Your task to perform on an android device: What's on my calendar today? Image 0: 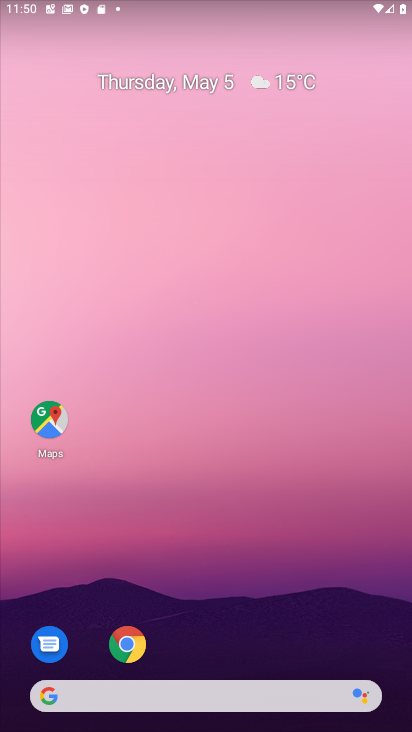
Step 0: drag from (294, 551) to (208, 36)
Your task to perform on an android device: What's on my calendar today? Image 1: 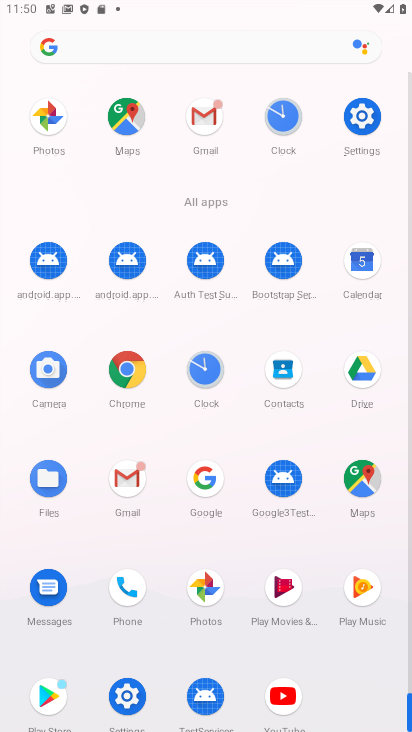
Step 1: drag from (6, 581) to (16, 299)
Your task to perform on an android device: What's on my calendar today? Image 2: 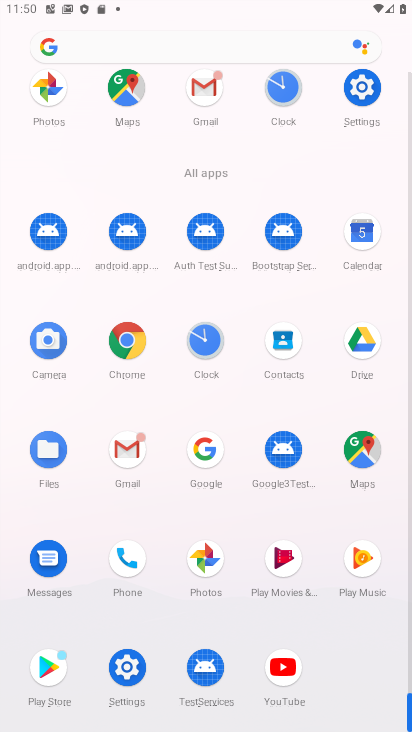
Step 2: click (363, 228)
Your task to perform on an android device: What's on my calendar today? Image 3: 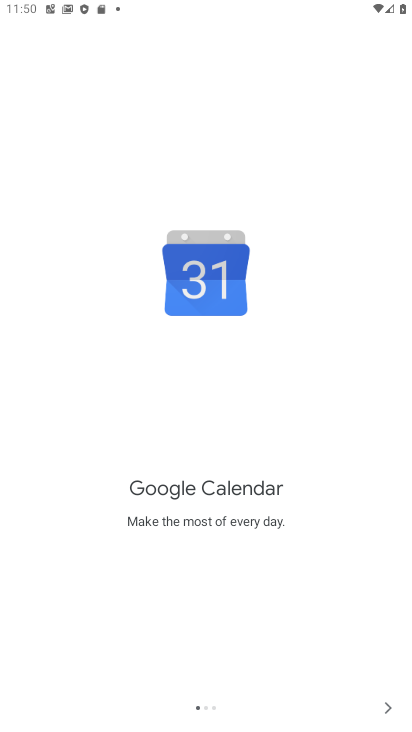
Step 3: click (386, 709)
Your task to perform on an android device: What's on my calendar today? Image 4: 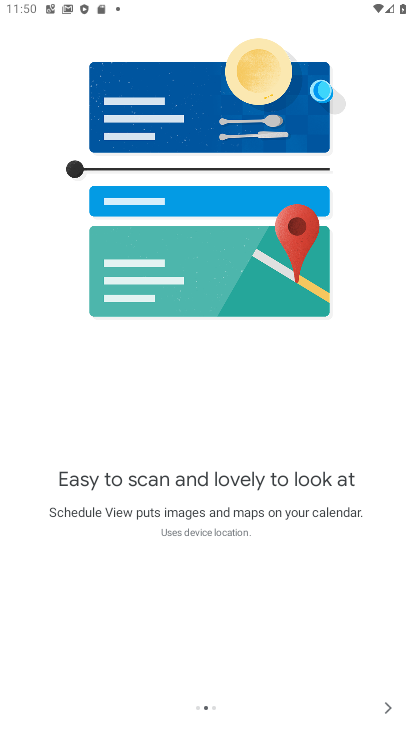
Step 4: click (385, 709)
Your task to perform on an android device: What's on my calendar today? Image 5: 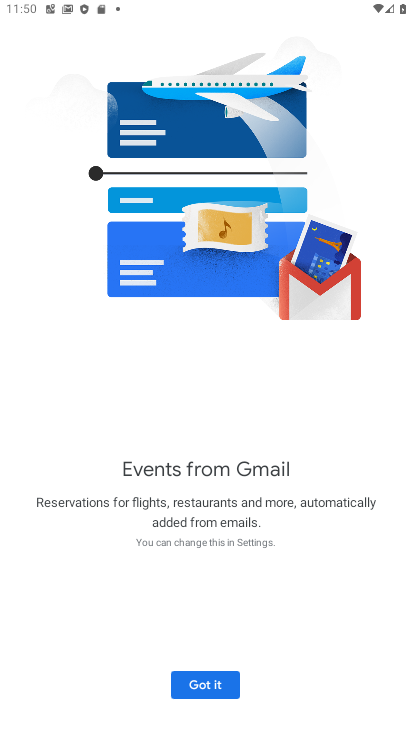
Step 5: click (214, 681)
Your task to perform on an android device: What's on my calendar today? Image 6: 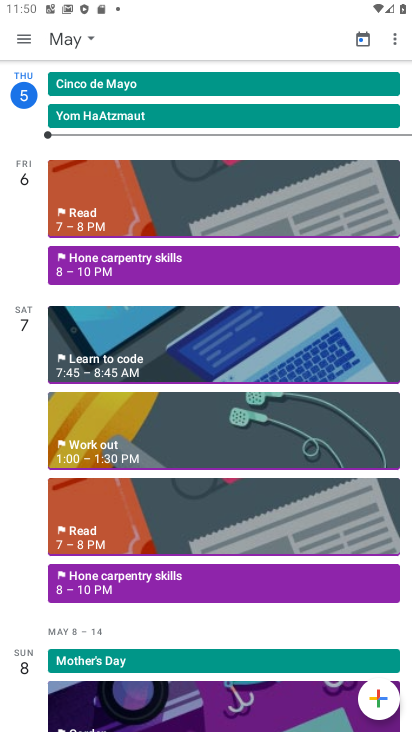
Step 6: click (369, 34)
Your task to perform on an android device: What's on my calendar today? Image 7: 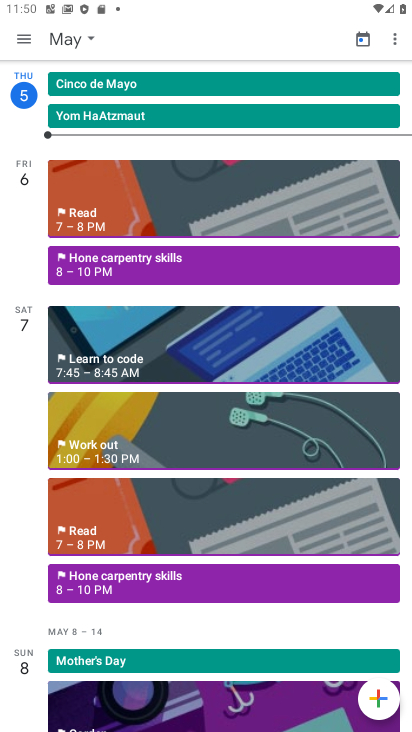
Step 7: click (38, 36)
Your task to perform on an android device: What's on my calendar today? Image 8: 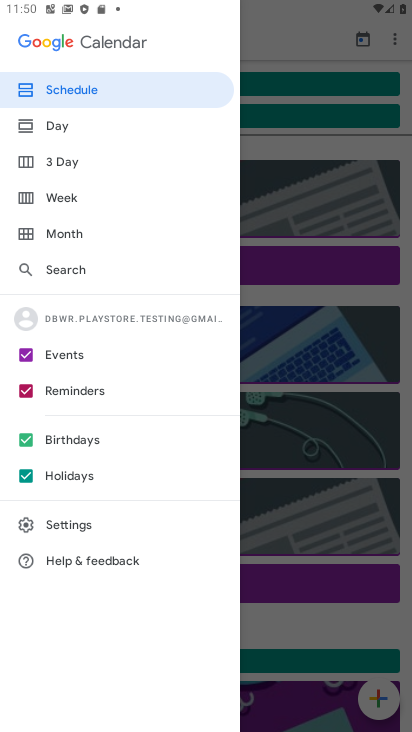
Step 8: click (285, 41)
Your task to perform on an android device: What's on my calendar today? Image 9: 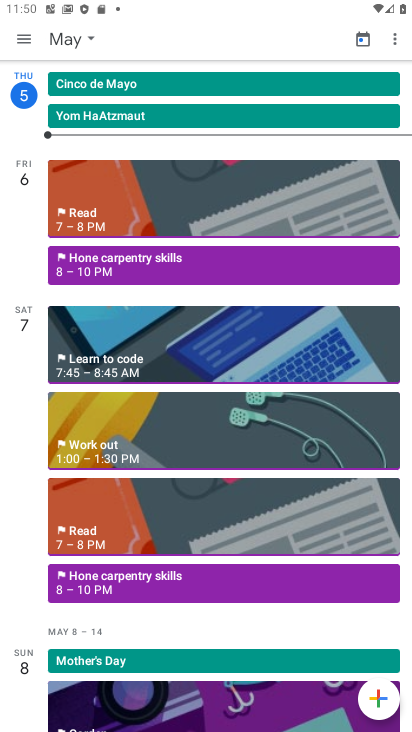
Step 9: click (21, 98)
Your task to perform on an android device: What's on my calendar today? Image 10: 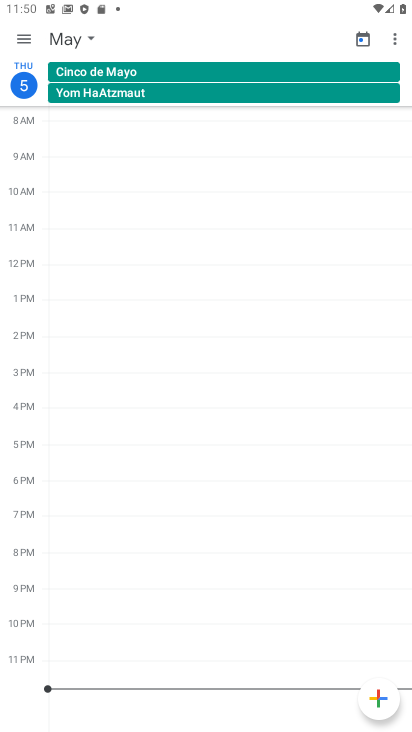
Step 10: click (32, 86)
Your task to perform on an android device: What's on my calendar today? Image 11: 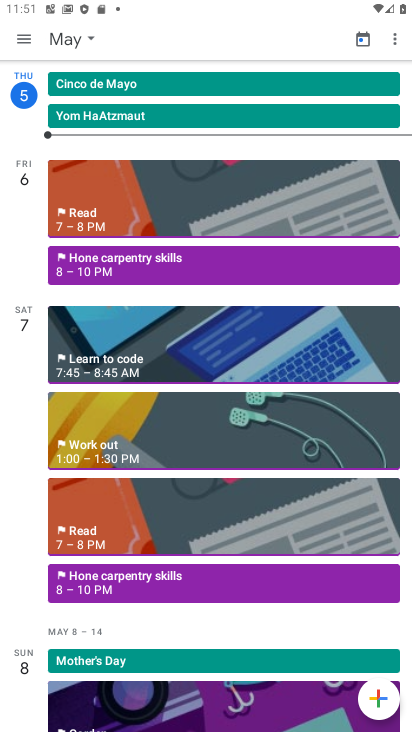
Step 11: task complete